Your task to perform on an android device: Open Google Chrome and open the bookmarks view Image 0: 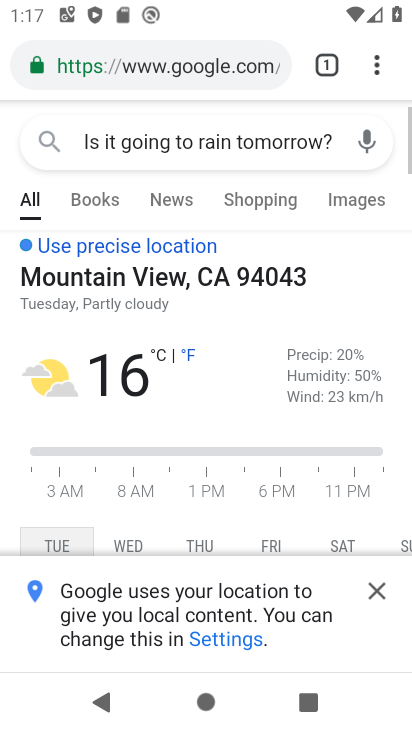
Step 0: press home button
Your task to perform on an android device: Open Google Chrome and open the bookmarks view Image 1: 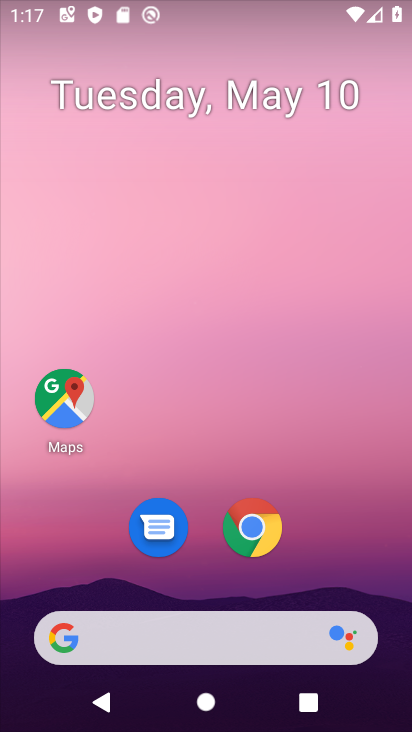
Step 1: click (244, 535)
Your task to perform on an android device: Open Google Chrome and open the bookmarks view Image 2: 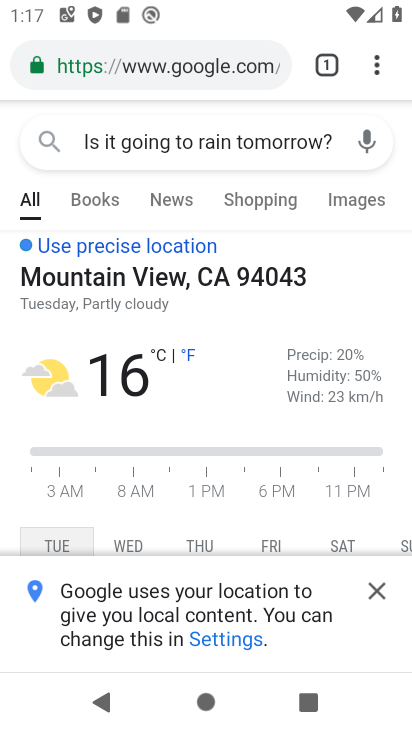
Step 2: click (376, 70)
Your task to perform on an android device: Open Google Chrome and open the bookmarks view Image 3: 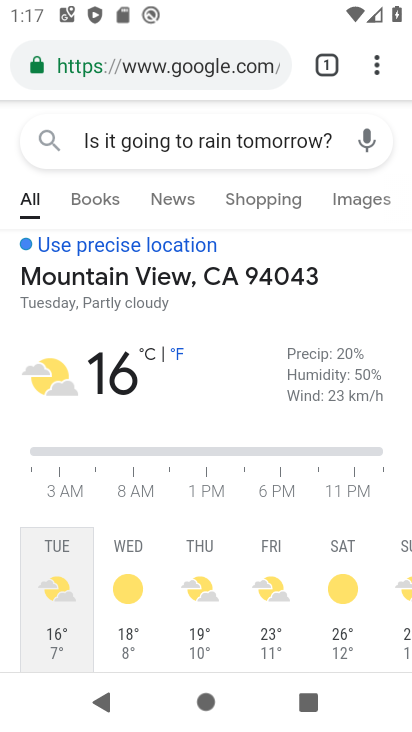
Step 3: click (374, 65)
Your task to perform on an android device: Open Google Chrome and open the bookmarks view Image 4: 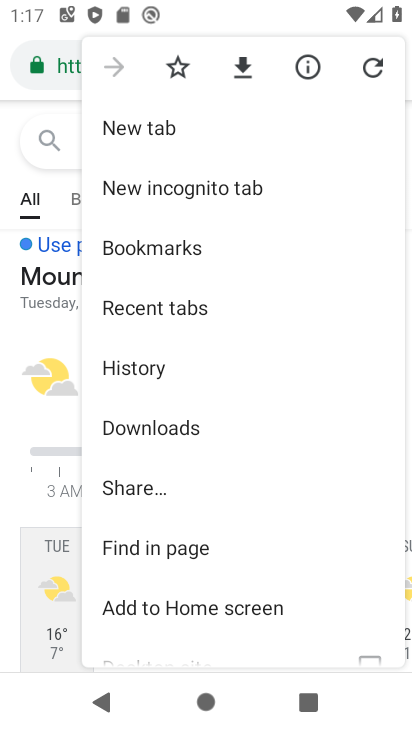
Step 4: click (171, 250)
Your task to perform on an android device: Open Google Chrome and open the bookmarks view Image 5: 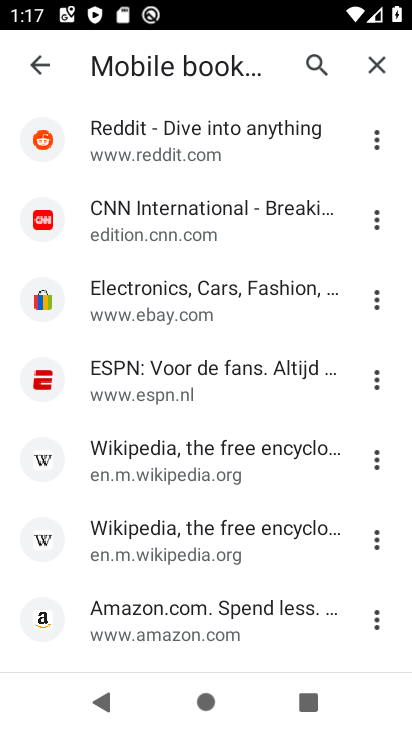
Step 5: task complete